Your task to perform on an android device: show emergency info Image 0: 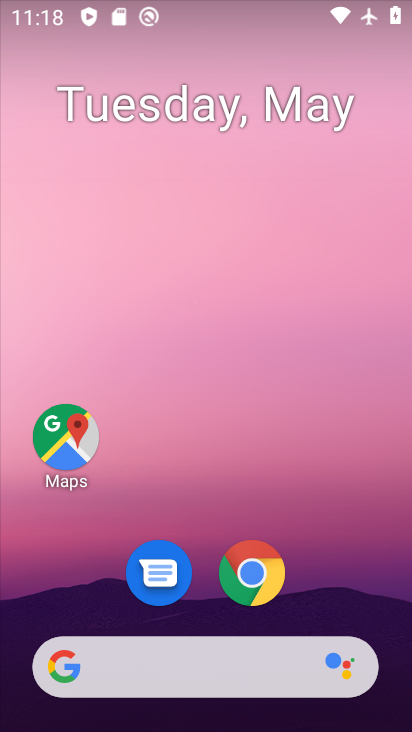
Step 0: drag from (174, 562) to (175, 148)
Your task to perform on an android device: show emergency info Image 1: 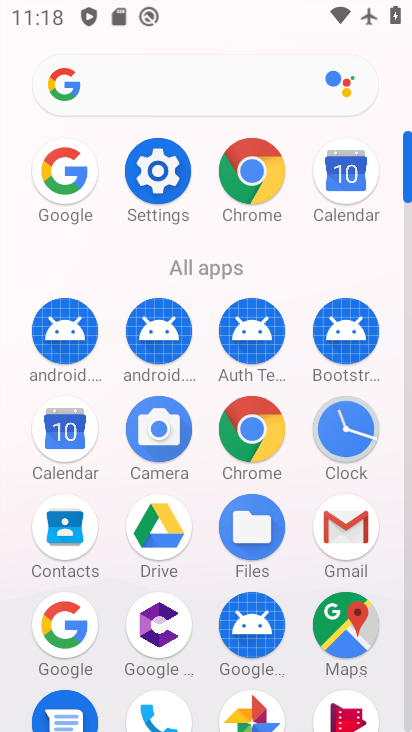
Step 1: click (160, 174)
Your task to perform on an android device: show emergency info Image 2: 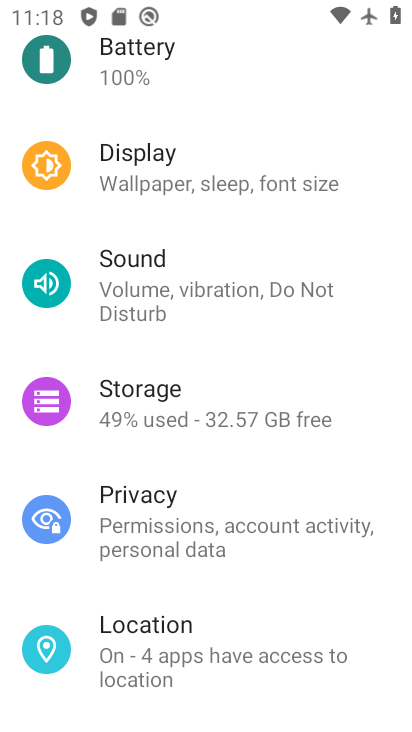
Step 2: drag from (214, 63) to (222, 425)
Your task to perform on an android device: show emergency info Image 3: 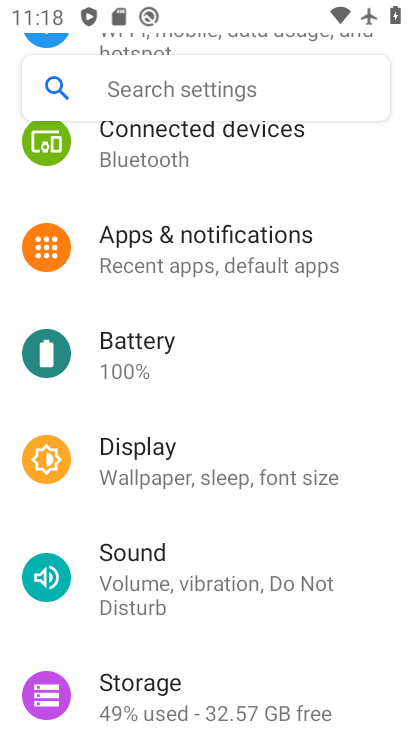
Step 3: drag from (192, 711) to (210, 297)
Your task to perform on an android device: show emergency info Image 4: 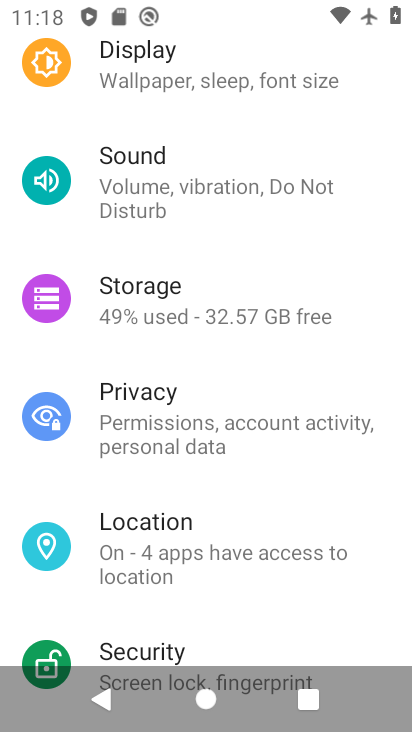
Step 4: drag from (197, 607) to (212, 265)
Your task to perform on an android device: show emergency info Image 5: 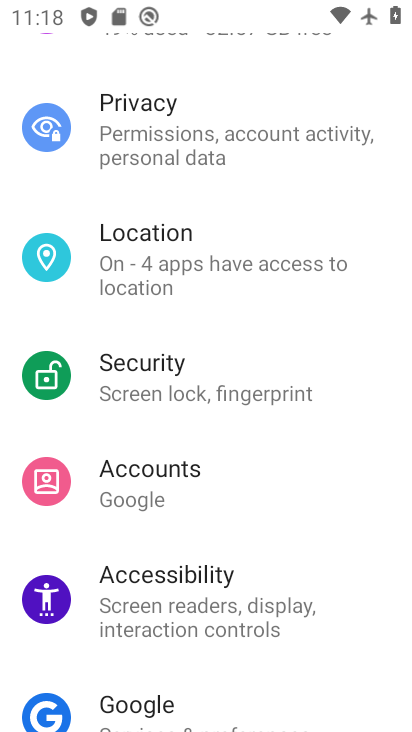
Step 5: drag from (160, 657) to (159, 258)
Your task to perform on an android device: show emergency info Image 6: 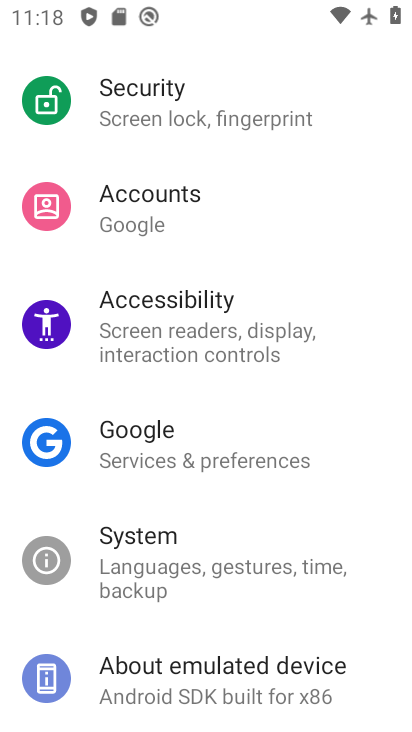
Step 6: drag from (153, 646) to (150, 252)
Your task to perform on an android device: show emergency info Image 7: 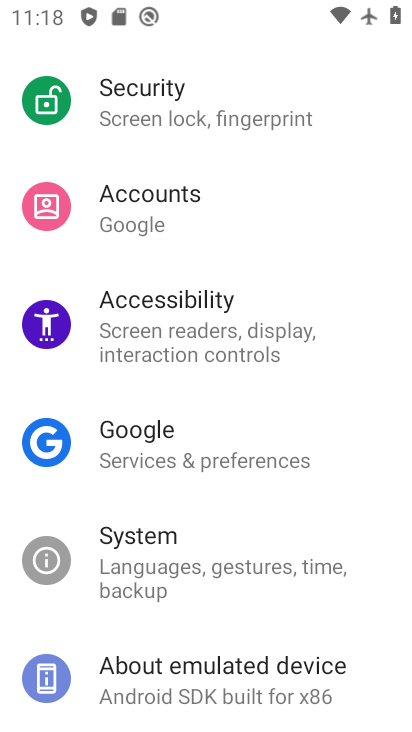
Step 7: click (177, 672)
Your task to perform on an android device: show emergency info Image 8: 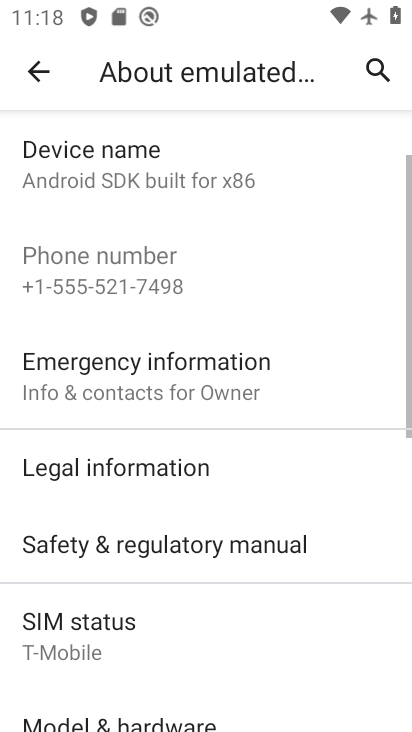
Step 8: click (133, 364)
Your task to perform on an android device: show emergency info Image 9: 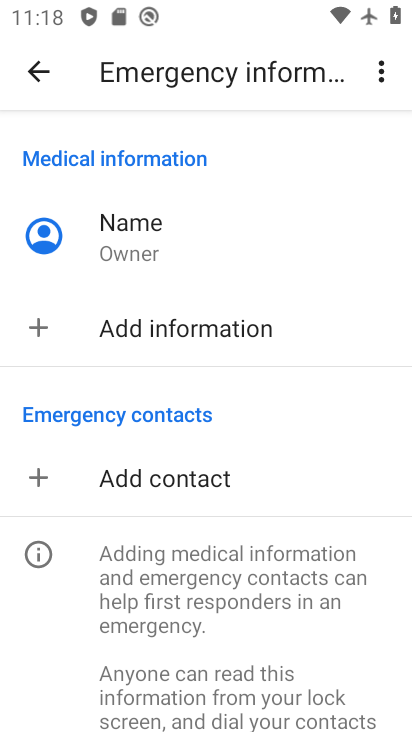
Step 9: task complete